Your task to perform on an android device: open sync settings in chrome Image 0: 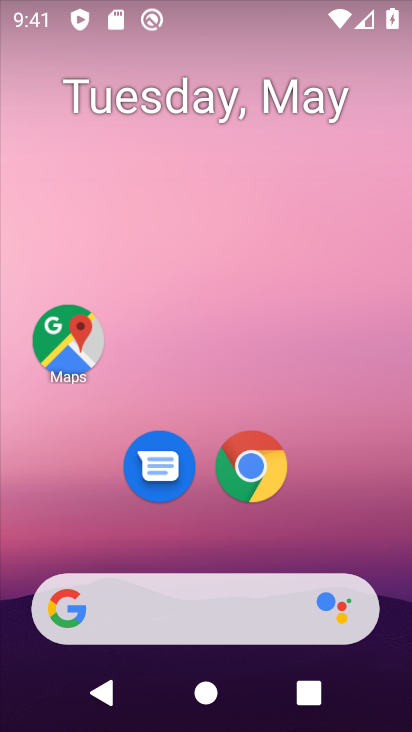
Step 0: click (254, 457)
Your task to perform on an android device: open sync settings in chrome Image 1: 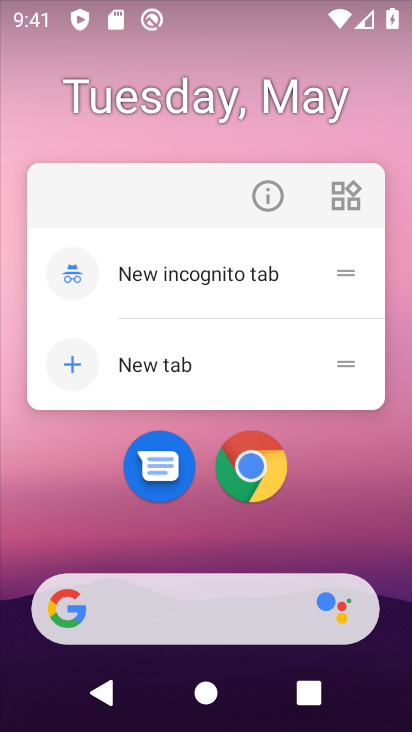
Step 1: click (247, 475)
Your task to perform on an android device: open sync settings in chrome Image 2: 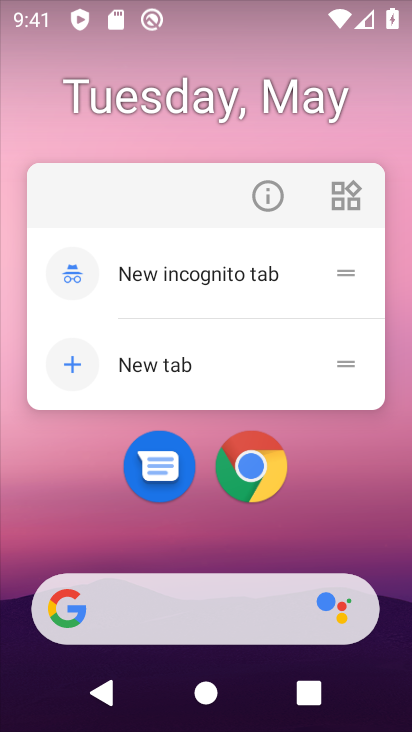
Step 2: click (252, 494)
Your task to perform on an android device: open sync settings in chrome Image 3: 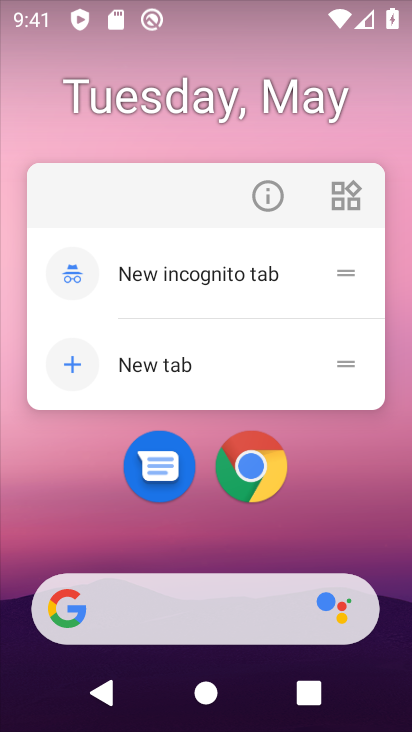
Step 3: click (252, 492)
Your task to perform on an android device: open sync settings in chrome Image 4: 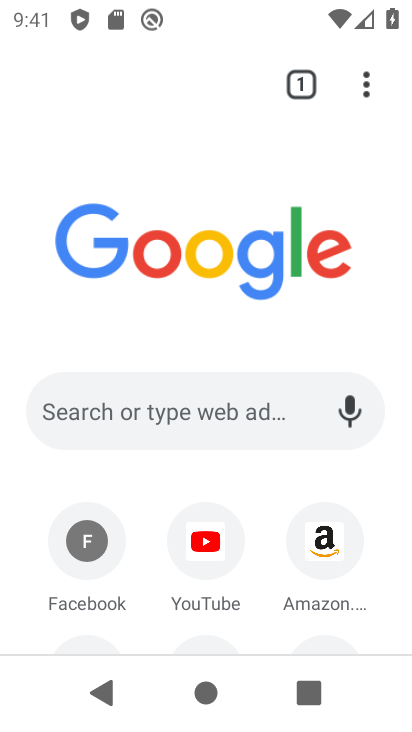
Step 4: click (380, 104)
Your task to perform on an android device: open sync settings in chrome Image 5: 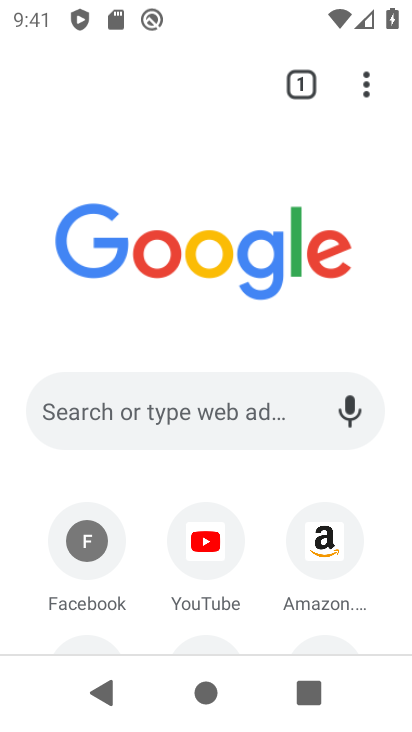
Step 5: click (376, 90)
Your task to perform on an android device: open sync settings in chrome Image 6: 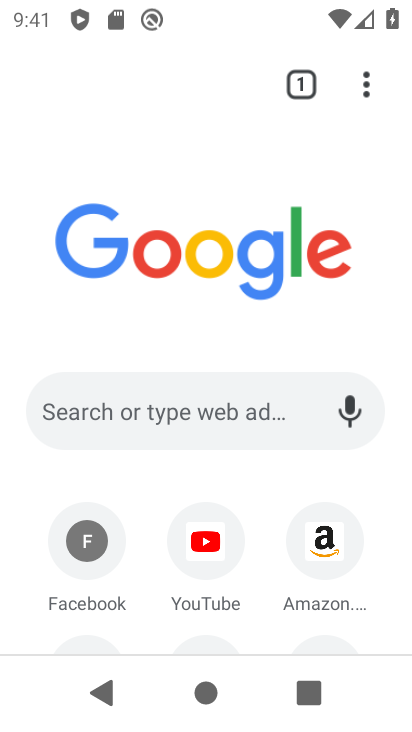
Step 6: drag from (395, 95) to (302, 543)
Your task to perform on an android device: open sync settings in chrome Image 7: 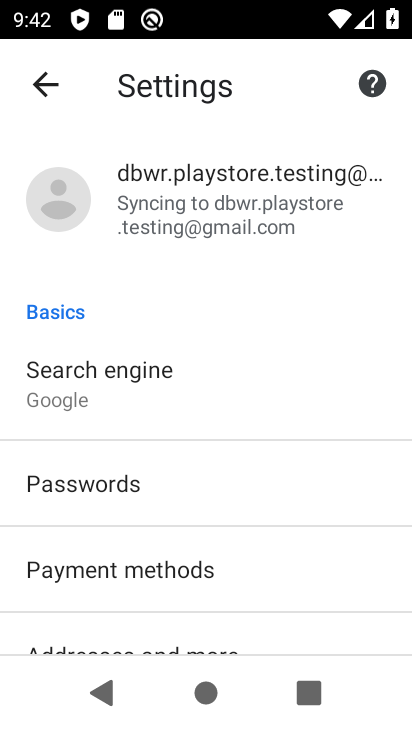
Step 7: click (293, 226)
Your task to perform on an android device: open sync settings in chrome Image 8: 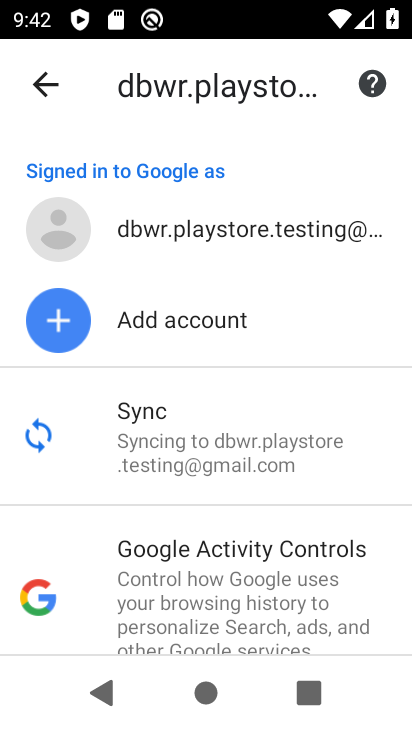
Step 8: click (219, 473)
Your task to perform on an android device: open sync settings in chrome Image 9: 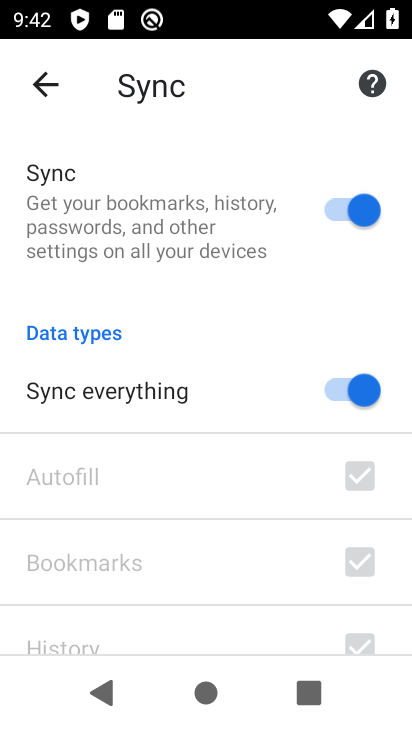
Step 9: task complete